Your task to perform on an android device: check out phone information Image 0: 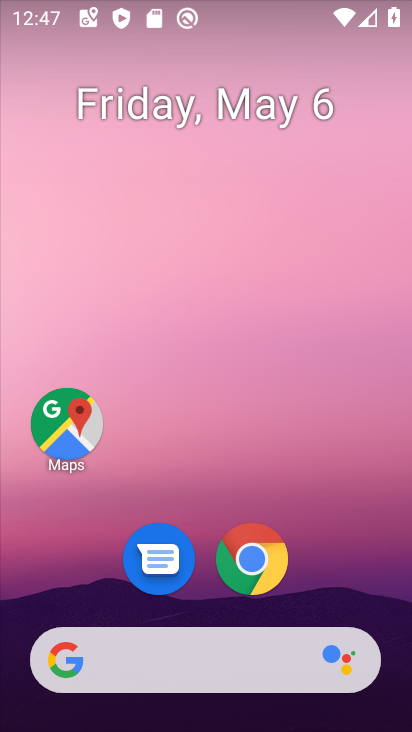
Step 0: drag from (346, 578) to (311, 172)
Your task to perform on an android device: check out phone information Image 1: 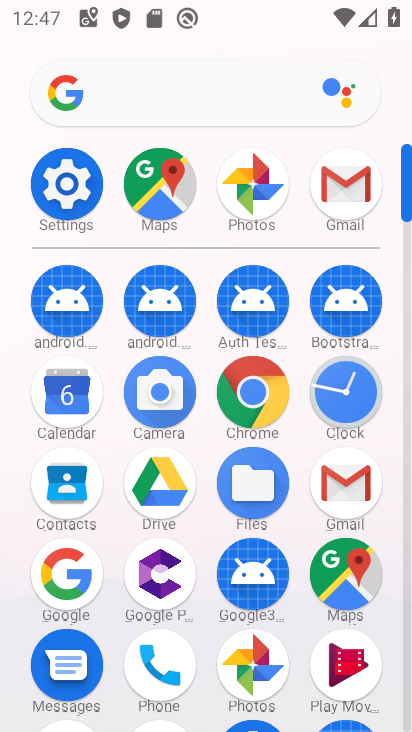
Step 1: click (57, 191)
Your task to perform on an android device: check out phone information Image 2: 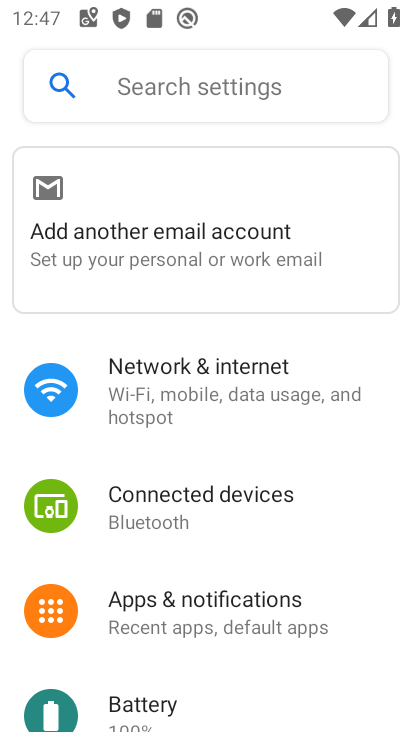
Step 2: drag from (142, 542) to (172, 349)
Your task to perform on an android device: check out phone information Image 3: 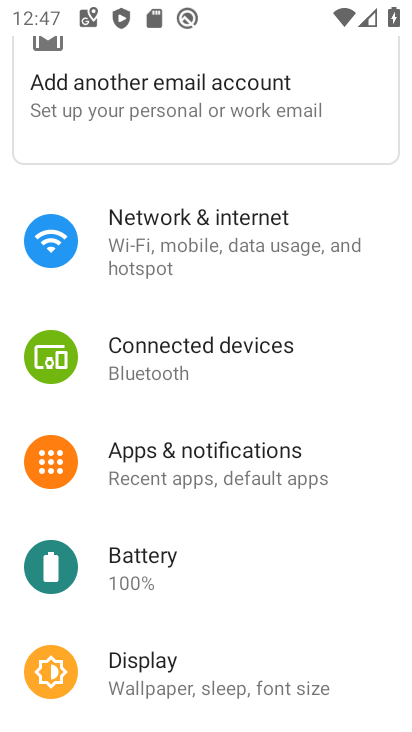
Step 3: drag from (169, 585) to (181, 204)
Your task to perform on an android device: check out phone information Image 4: 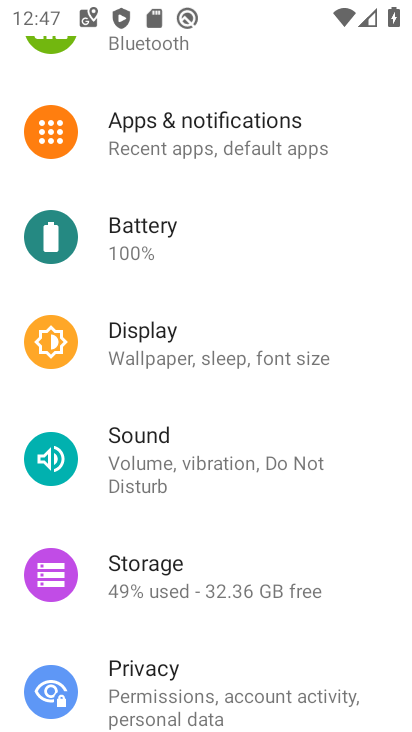
Step 4: drag from (176, 533) to (193, 134)
Your task to perform on an android device: check out phone information Image 5: 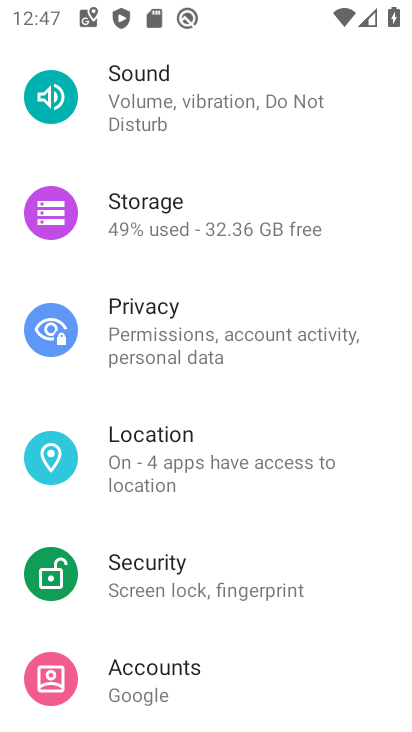
Step 5: drag from (235, 551) to (262, 269)
Your task to perform on an android device: check out phone information Image 6: 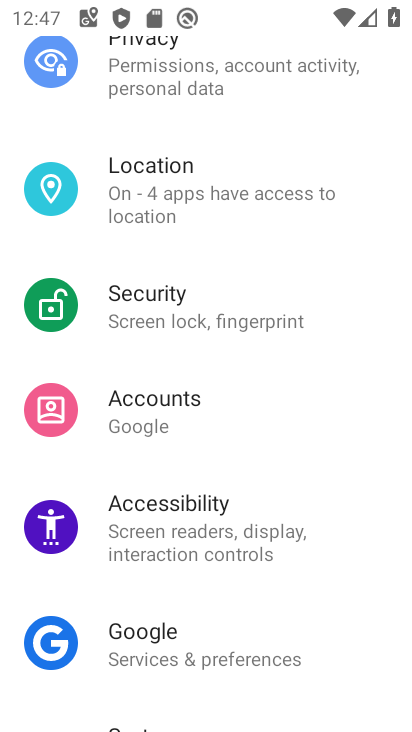
Step 6: drag from (208, 605) to (229, 295)
Your task to perform on an android device: check out phone information Image 7: 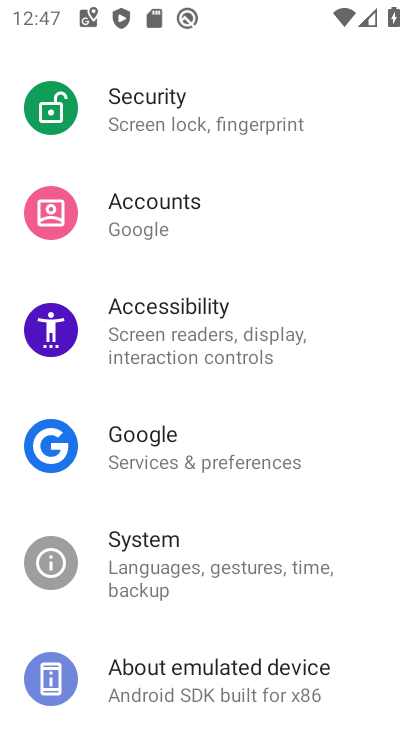
Step 7: click (178, 664)
Your task to perform on an android device: check out phone information Image 8: 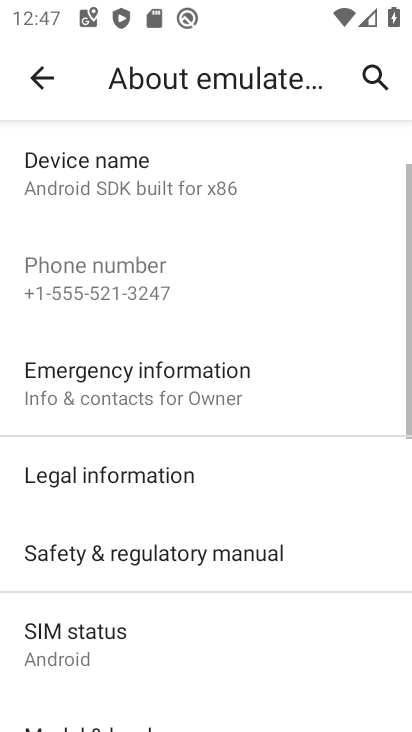
Step 8: task complete